Your task to perform on an android device: Open Google Image 0: 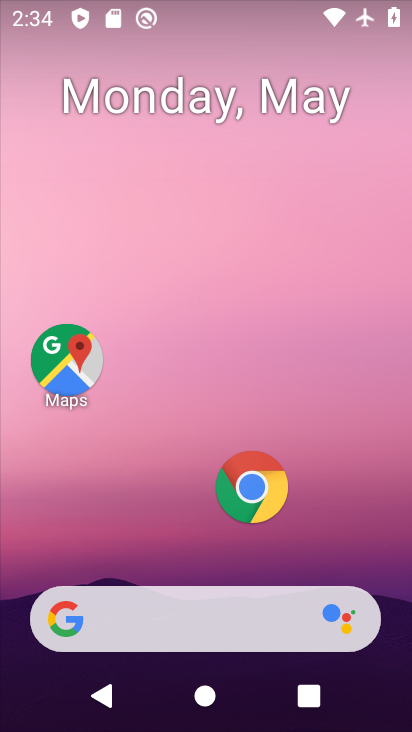
Step 0: drag from (84, 531) to (221, 59)
Your task to perform on an android device: Open Google Image 1: 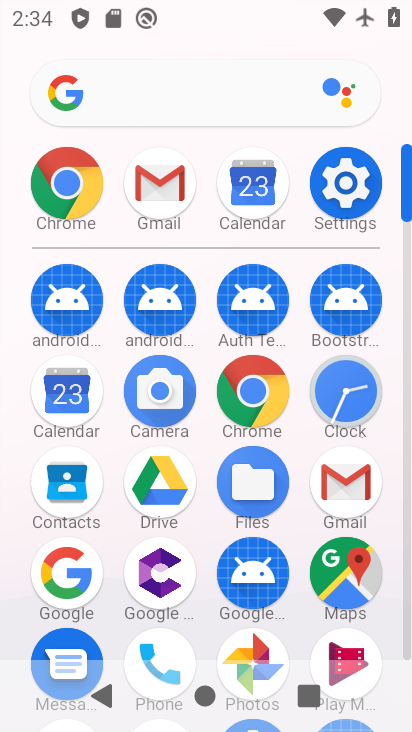
Step 1: click (58, 577)
Your task to perform on an android device: Open Google Image 2: 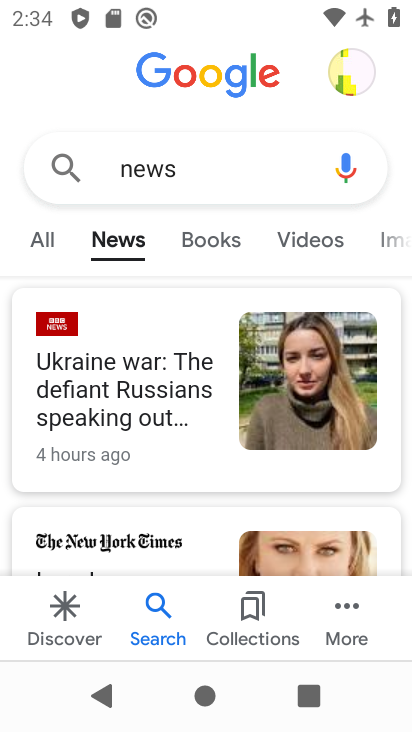
Step 2: task complete